Your task to perform on an android device: Open my contact list Image 0: 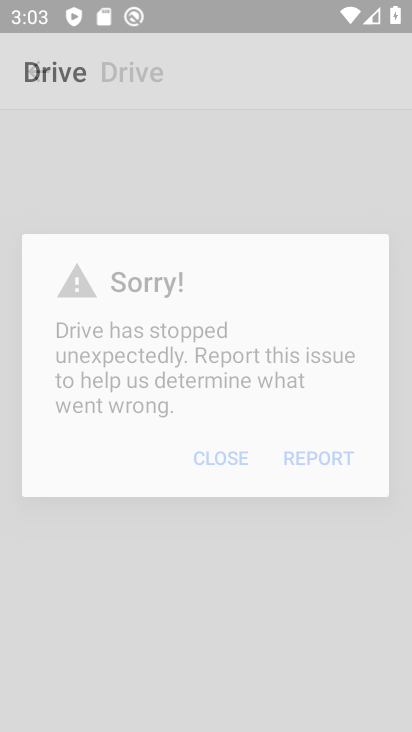
Step 0: press home button
Your task to perform on an android device: Open my contact list Image 1: 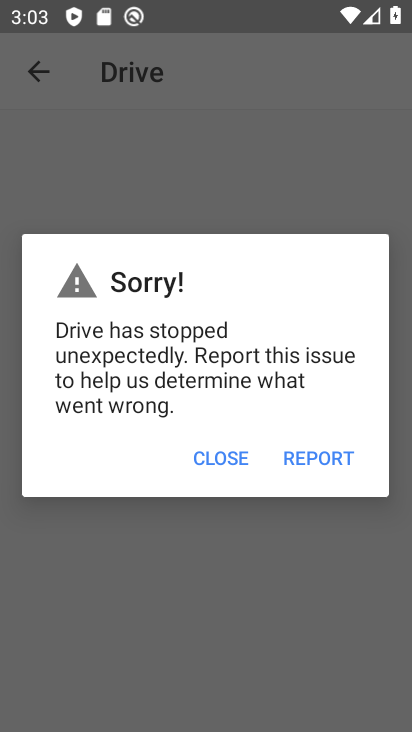
Step 1: press home button
Your task to perform on an android device: Open my contact list Image 2: 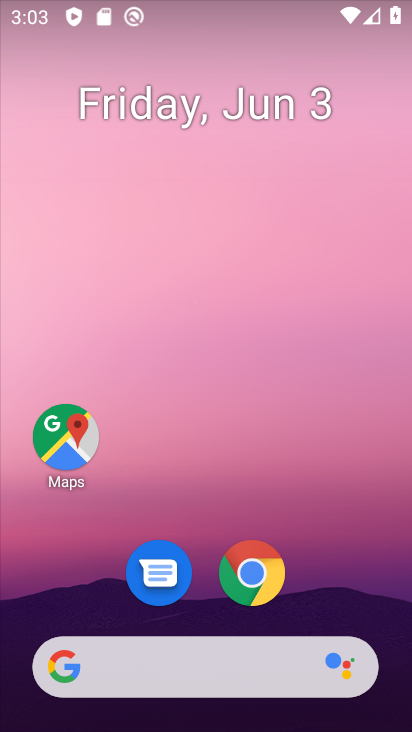
Step 2: press home button
Your task to perform on an android device: Open my contact list Image 3: 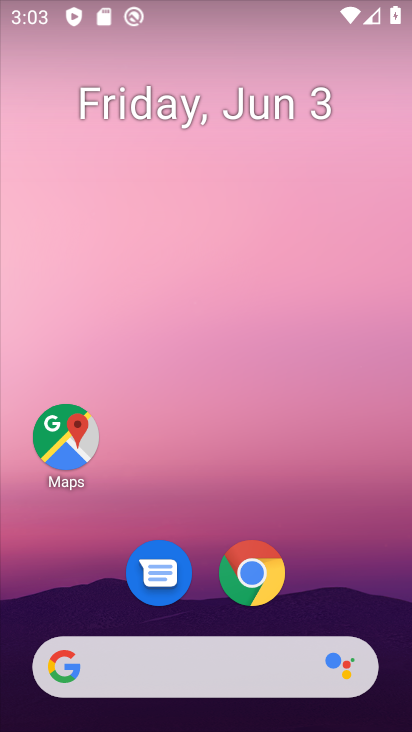
Step 3: drag from (386, 627) to (295, 65)
Your task to perform on an android device: Open my contact list Image 4: 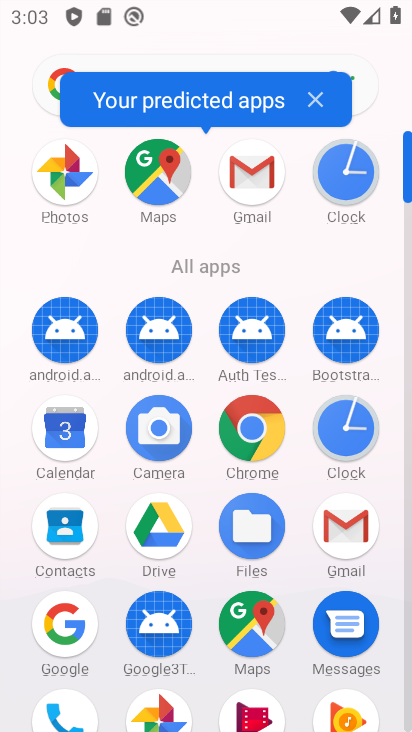
Step 4: click (66, 544)
Your task to perform on an android device: Open my contact list Image 5: 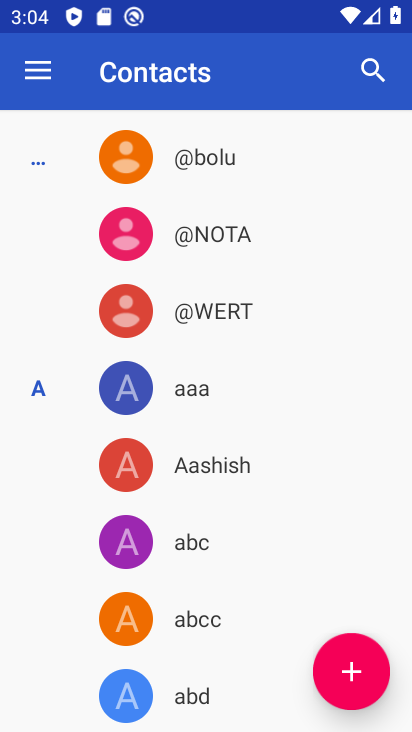
Step 5: task complete